Your task to perform on an android device: Open calendar and show me the first week of next month Image 0: 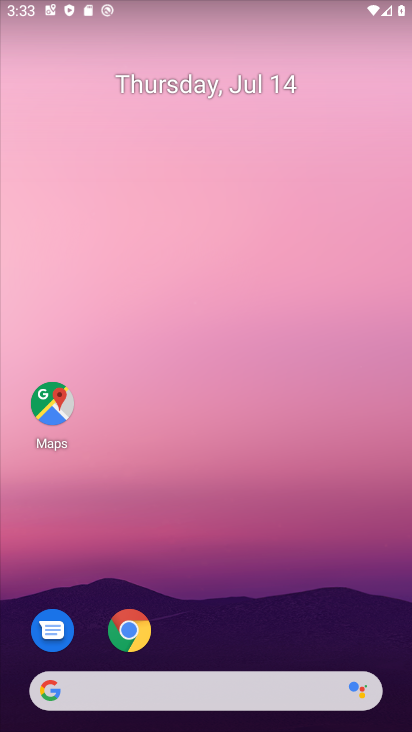
Step 0: drag from (273, 592) to (203, 40)
Your task to perform on an android device: Open calendar and show me the first week of next month Image 1: 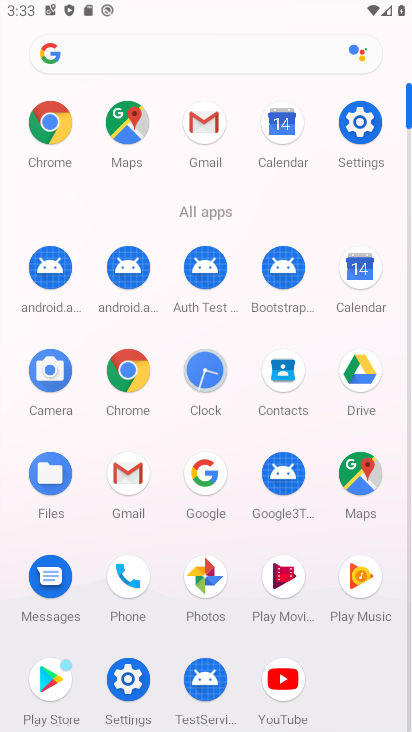
Step 1: click (283, 133)
Your task to perform on an android device: Open calendar and show me the first week of next month Image 2: 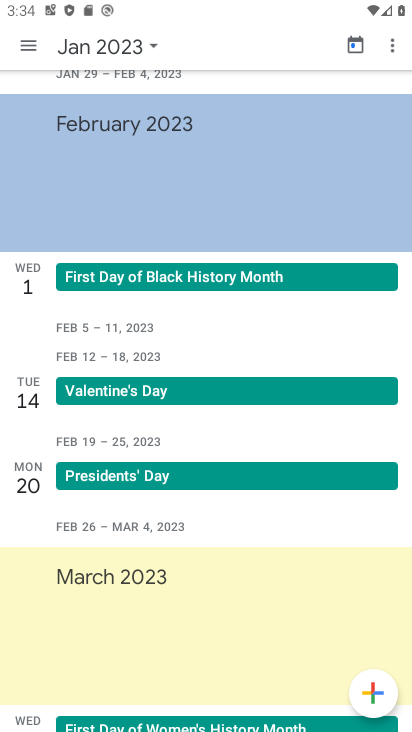
Step 2: click (35, 49)
Your task to perform on an android device: Open calendar and show me the first week of next month Image 3: 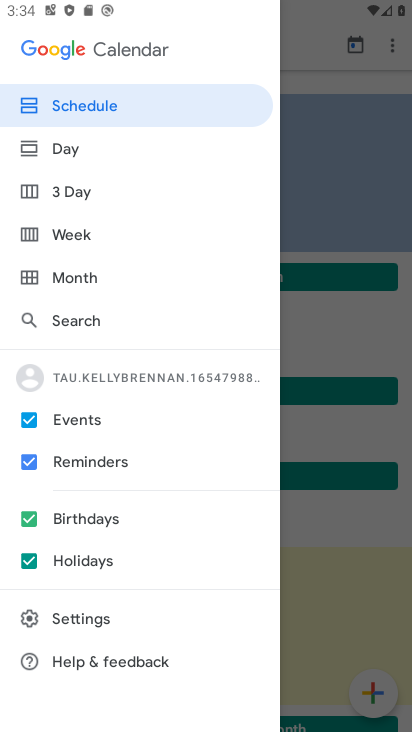
Step 3: click (116, 231)
Your task to perform on an android device: Open calendar and show me the first week of next month Image 4: 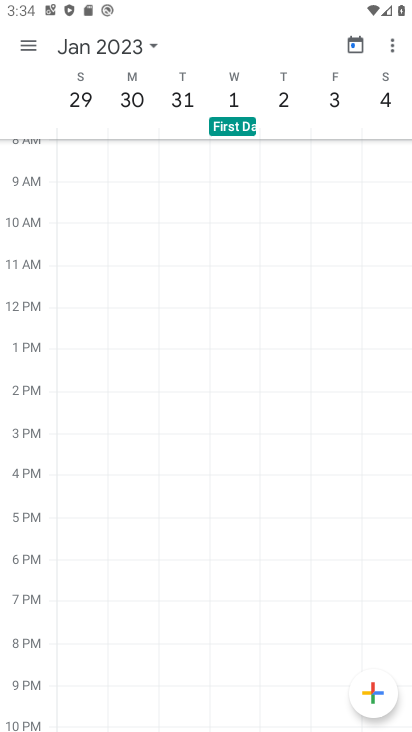
Step 4: click (123, 44)
Your task to perform on an android device: Open calendar and show me the first week of next month Image 5: 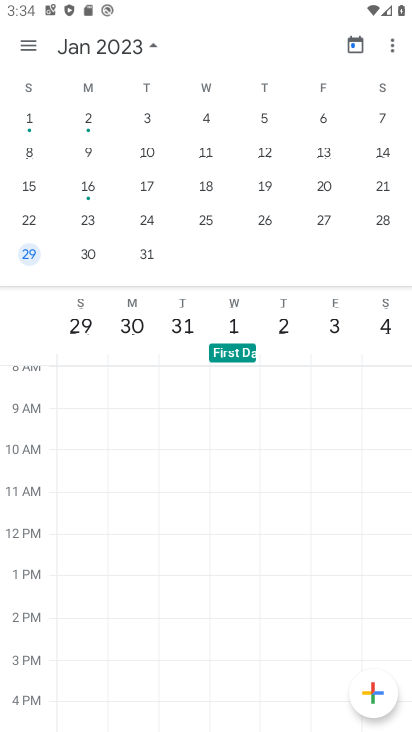
Step 5: drag from (110, 138) to (369, 202)
Your task to perform on an android device: Open calendar and show me the first week of next month Image 6: 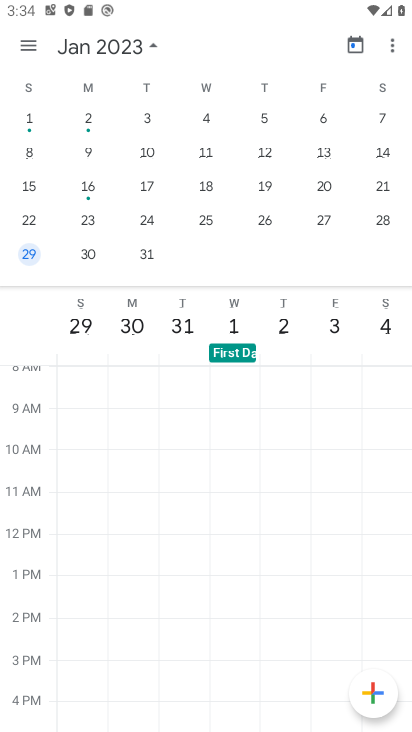
Step 6: drag from (105, 144) to (397, 238)
Your task to perform on an android device: Open calendar and show me the first week of next month Image 7: 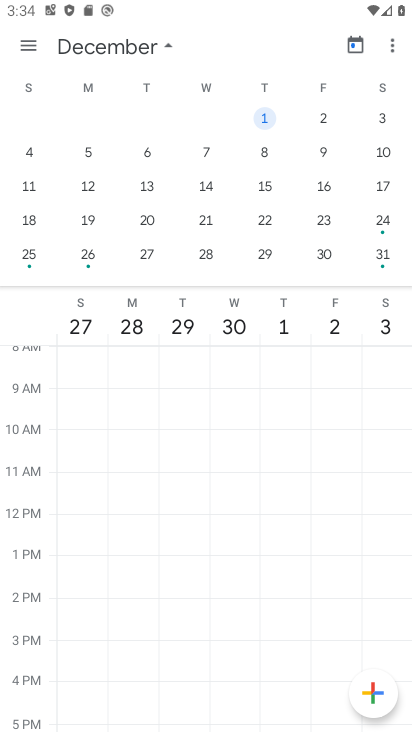
Step 7: drag from (22, 112) to (255, 234)
Your task to perform on an android device: Open calendar and show me the first week of next month Image 8: 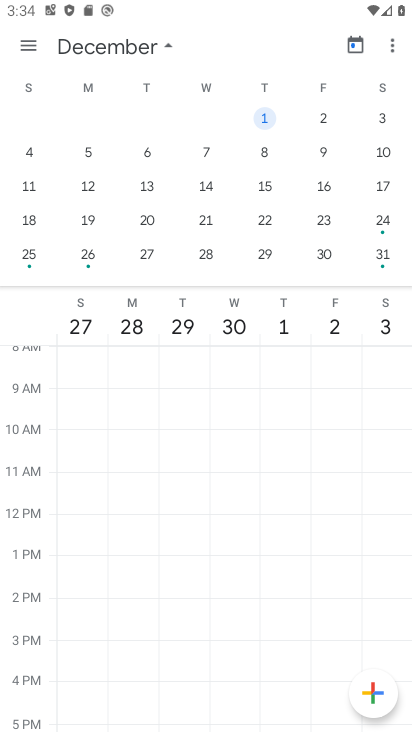
Step 8: drag from (38, 158) to (402, 206)
Your task to perform on an android device: Open calendar and show me the first week of next month Image 9: 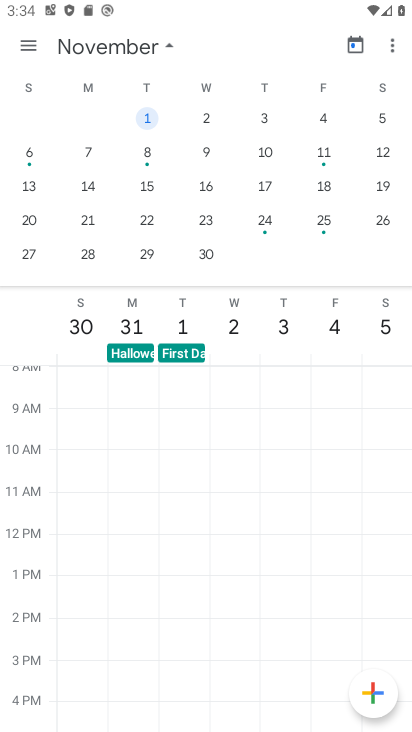
Step 9: drag from (28, 155) to (409, 244)
Your task to perform on an android device: Open calendar and show me the first week of next month Image 10: 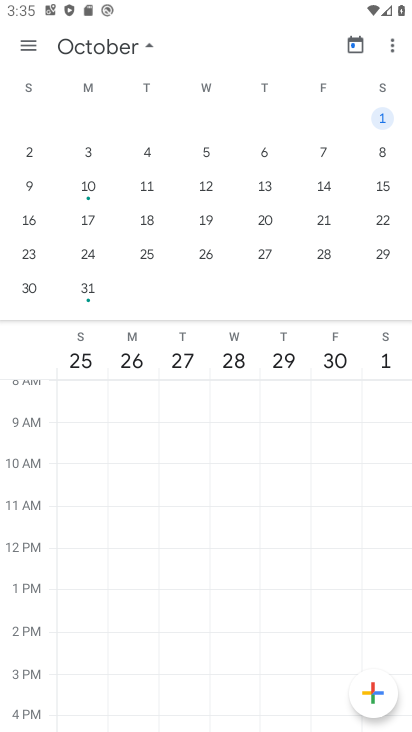
Step 10: drag from (38, 170) to (403, 237)
Your task to perform on an android device: Open calendar and show me the first week of next month Image 11: 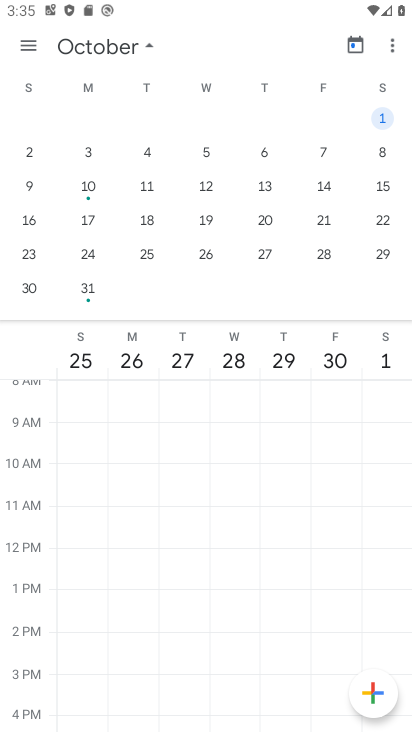
Step 11: drag from (33, 134) to (410, 181)
Your task to perform on an android device: Open calendar and show me the first week of next month Image 12: 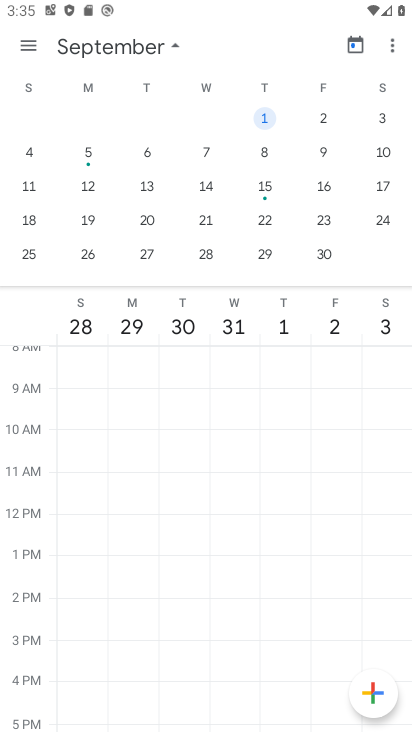
Step 12: drag from (28, 110) to (401, 207)
Your task to perform on an android device: Open calendar and show me the first week of next month Image 13: 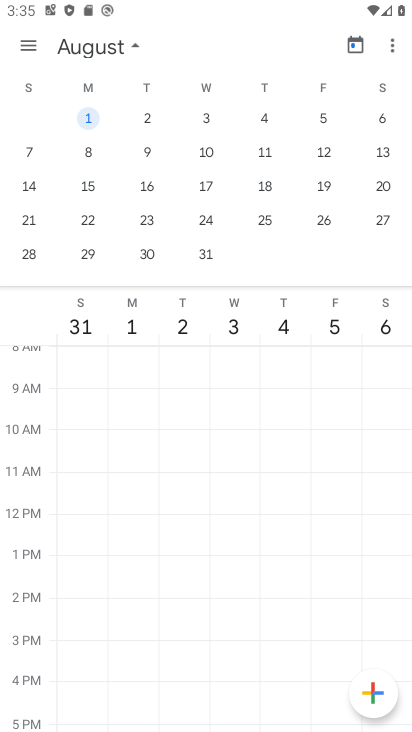
Step 13: click (130, 113)
Your task to perform on an android device: Open calendar and show me the first week of next month Image 14: 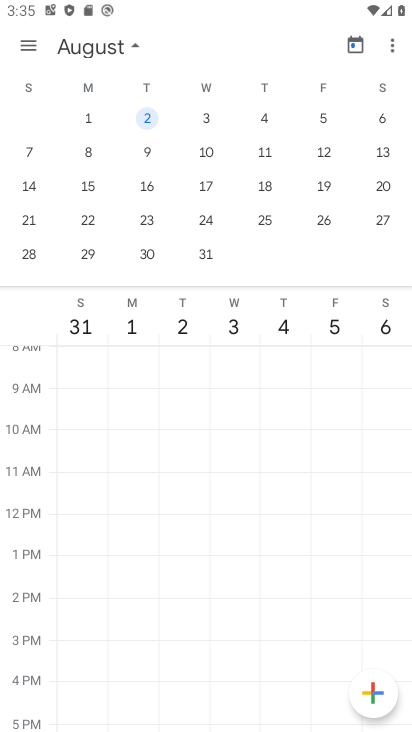
Step 14: task complete